Your task to perform on an android device: Open Maps and search for coffee Image 0: 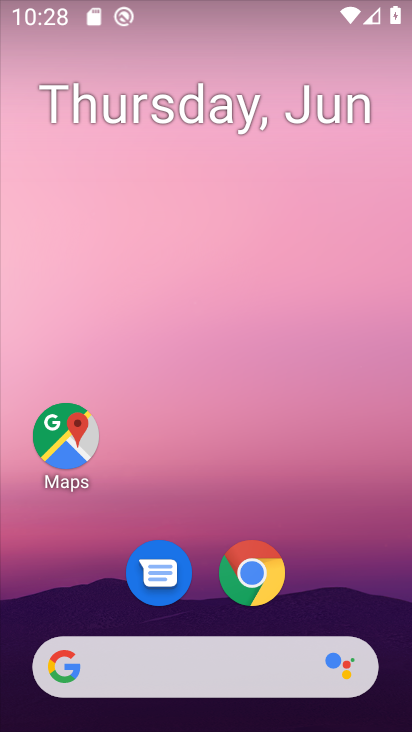
Step 0: press home button
Your task to perform on an android device: Open Maps and search for coffee Image 1: 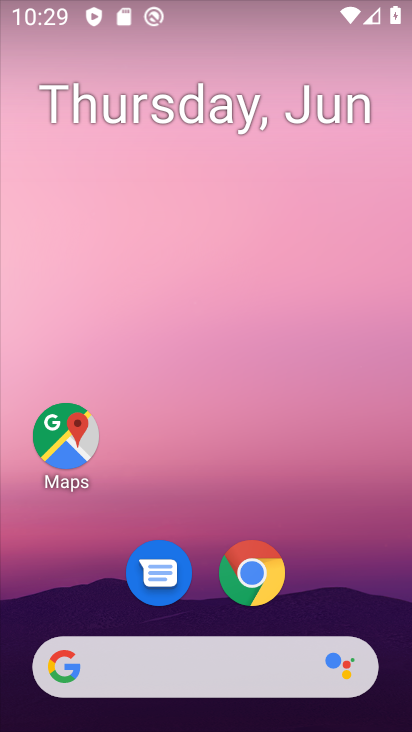
Step 1: click (60, 430)
Your task to perform on an android device: Open Maps and search for coffee Image 2: 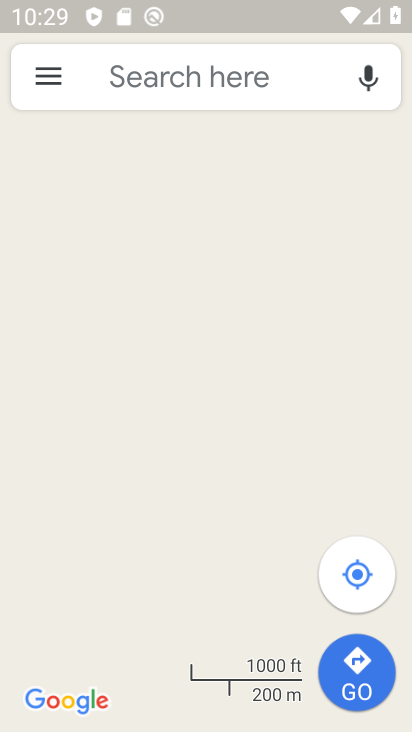
Step 2: click (160, 73)
Your task to perform on an android device: Open Maps and search for coffee Image 3: 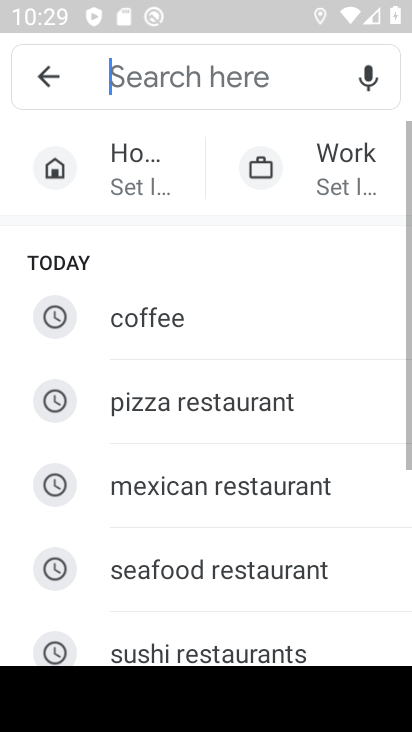
Step 3: type "coffee"
Your task to perform on an android device: Open Maps and search for coffee Image 4: 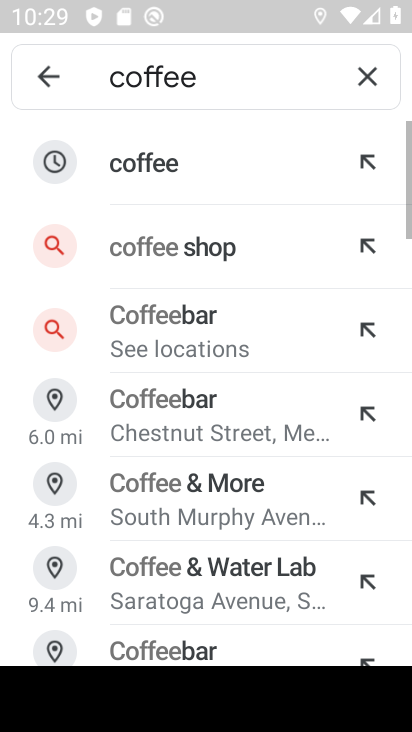
Step 4: click (175, 159)
Your task to perform on an android device: Open Maps and search for coffee Image 5: 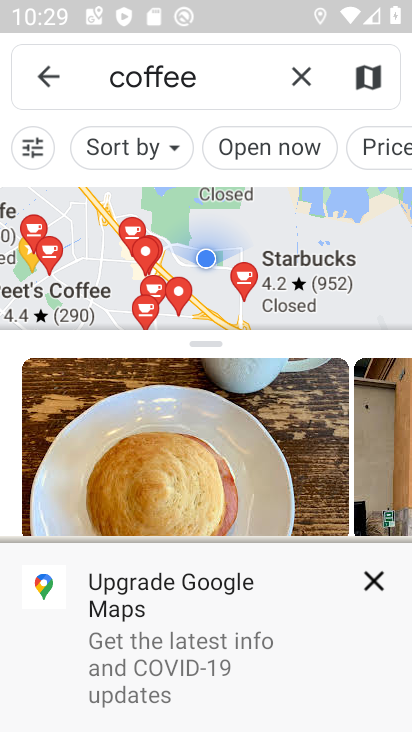
Step 5: click (369, 581)
Your task to perform on an android device: Open Maps and search for coffee Image 6: 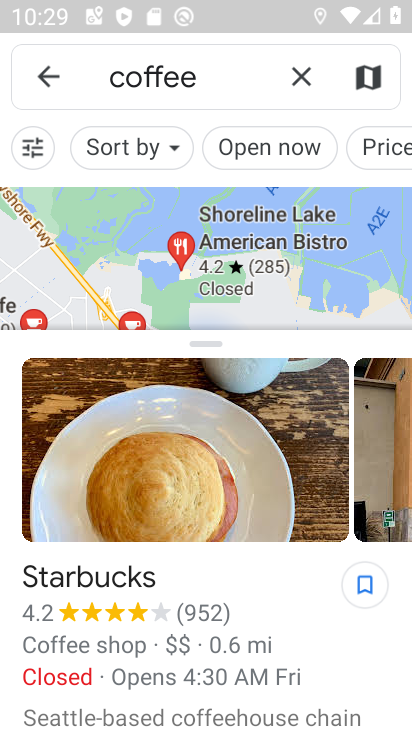
Step 6: drag from (230, 543) to (230, 209)
Your task to perform on an android device: Open Maps and search for coffee Image 7: 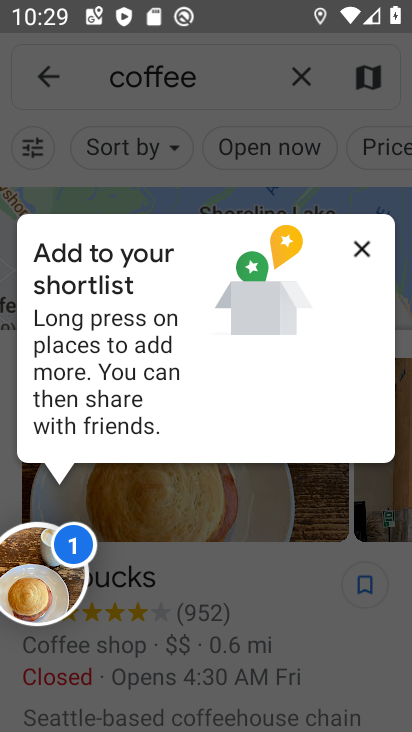
Step 7: click (351, 246)
Your task to perform on an android device: Open Maps and search for coffee Image 8: 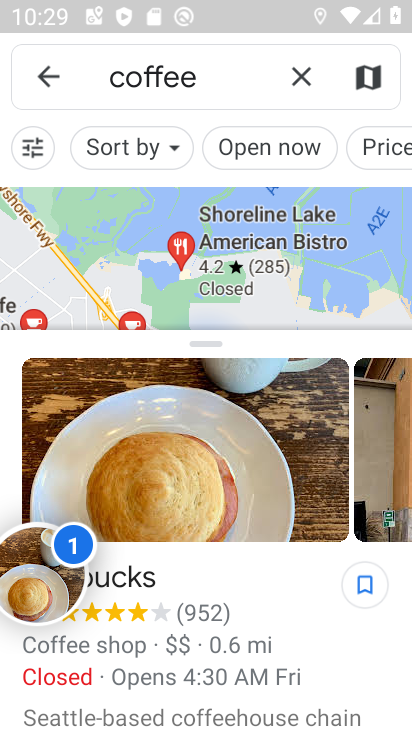
Step 8: task complete